Your task to perform on an android device: Go to internet settings Image 0: 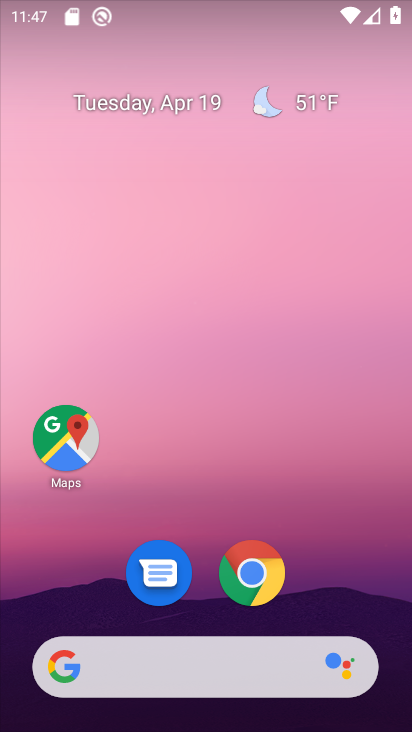
Step 0: drag from (322, 577) to (360, 168)
Your task to perform on an android device: Go to internet settings Image 1: 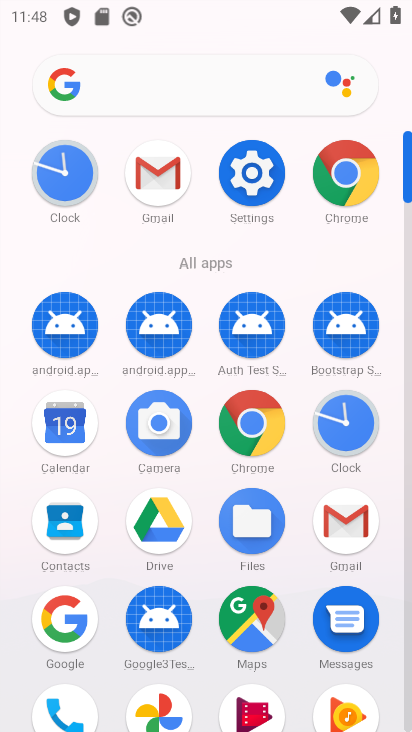
Step 1: click (264, 187)
Your task to perform on an android device: Go to internet settings Image 2: 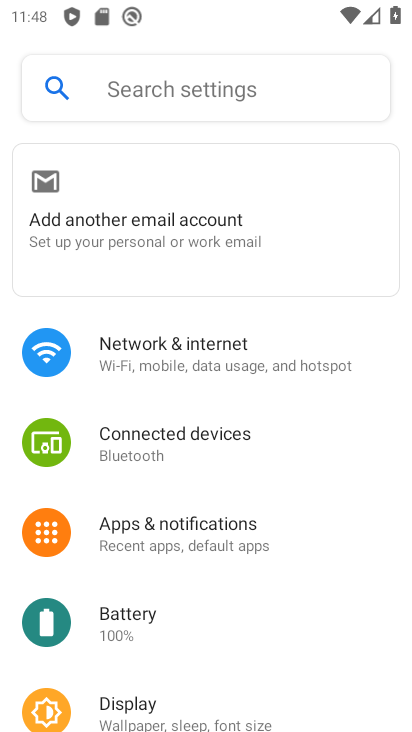
Step 2: drag from (209, 633) to (222, 295)
Your task to perform on an android device: Go to internet settings Image 3: 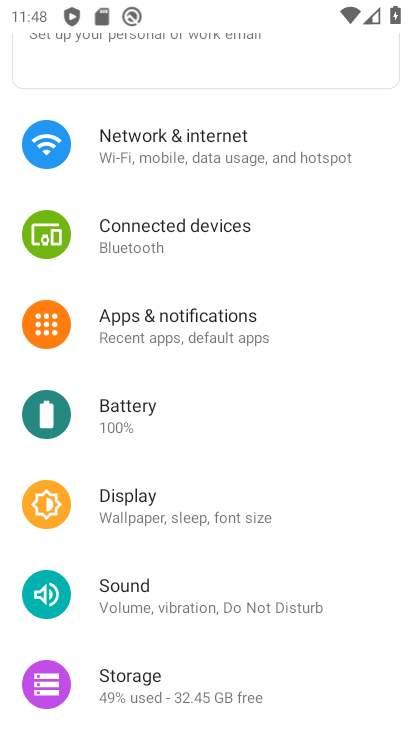
Step 3: drag from (231, 653) to (235, 437)
Your task to perform on an android device: Go to internet settings Image 4: 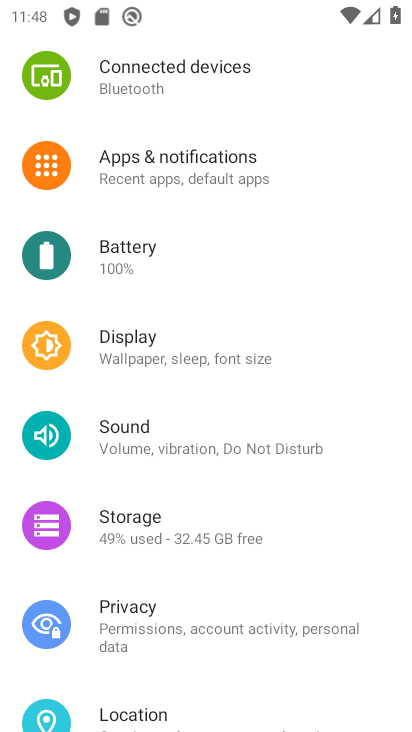
Step 4: drag from (260, 104) to (269, 560)
Your task to perform on an android device: Go to internet settings Image 5: 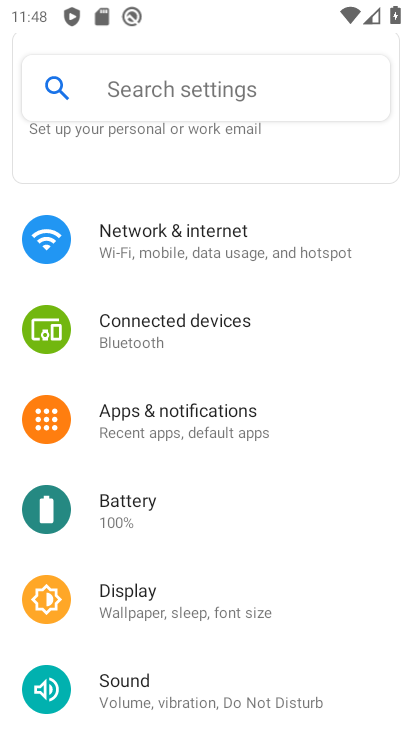
Step 5: click (245, 219)
Your task to perform on an android device: Go to internet settings Image 6: 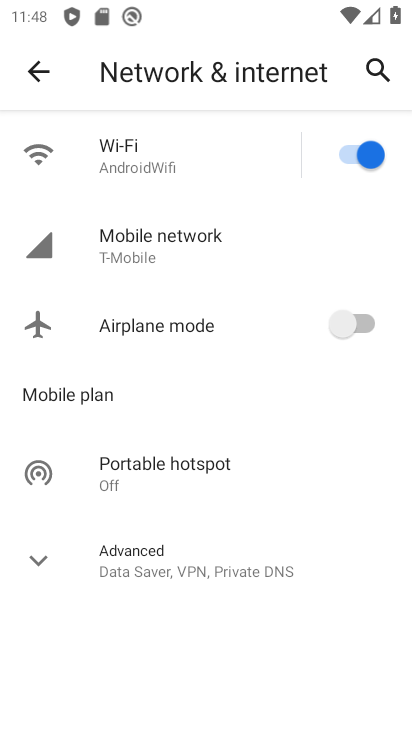
Step 6: task complete